Your task to perform on an android device: Open Google Chrome Image 0: 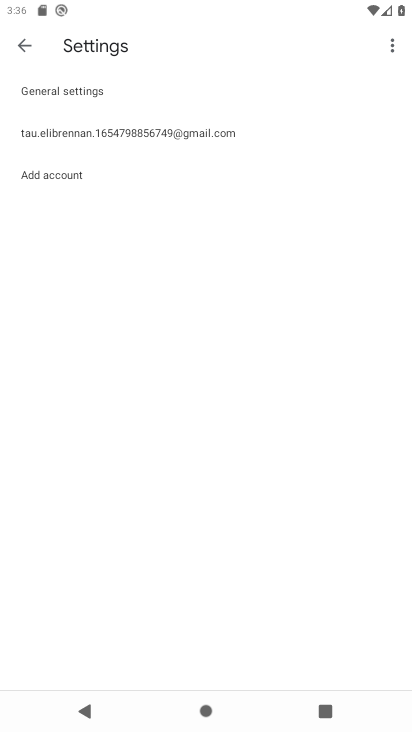
Step 0: press home button
Your task to perform on an android device: Open Google Chrome Image 1: 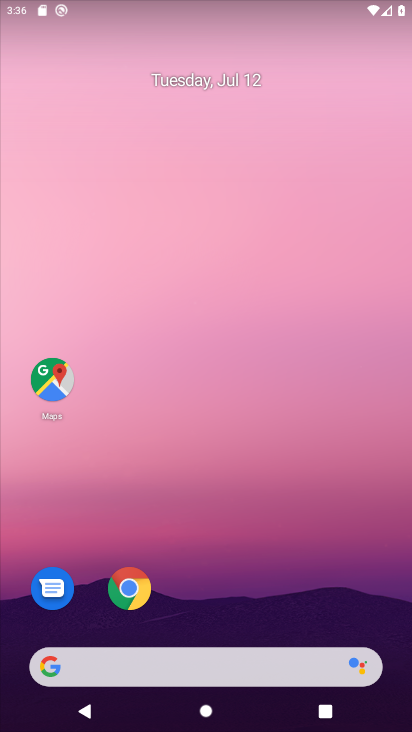
Step 1: click (131, 584)
Your task to perform on an android device: Open Google Chrome Image 2: 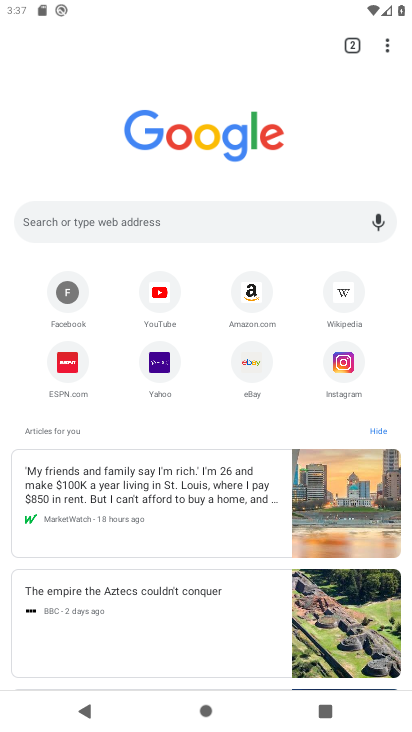
Step 2: task complete